Your task to perform on an android device: Open Reddit.com Image 0: 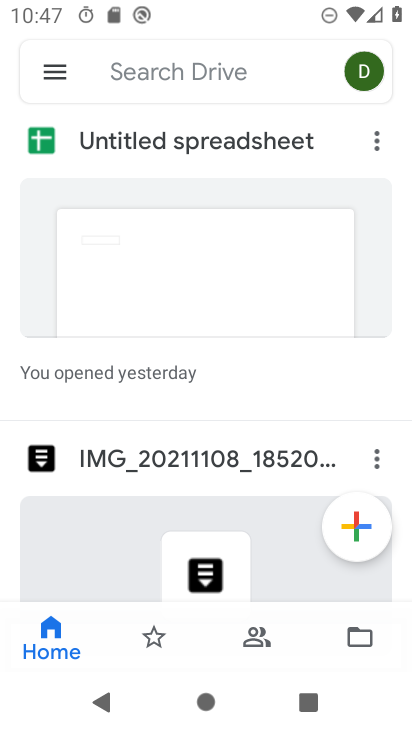
Step 0: press home button
Your task to perform on an android device: Open Reddit.com Image 1: 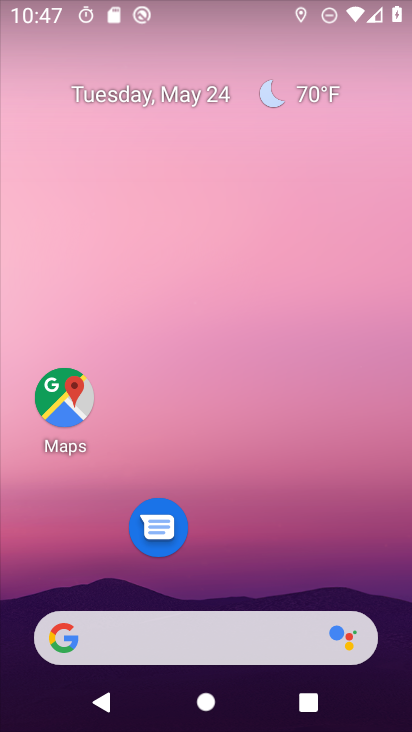
Step 1: drag from (228, 607) to (213, 96)
Your task to perform on an android device: Open Reddit.com Image 2: 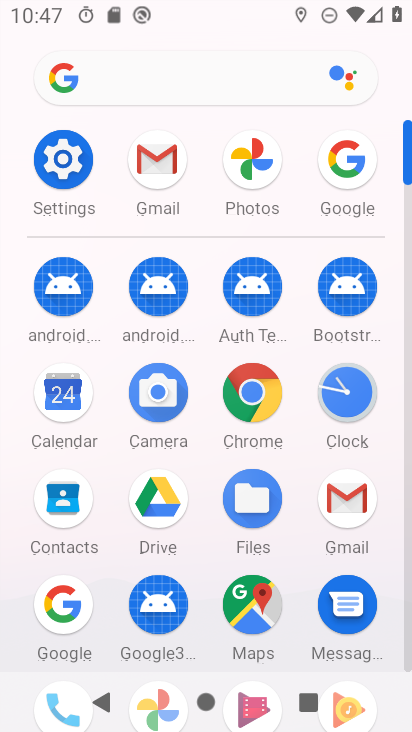
Step 2: click (352, 163)
Your task to perform on an android device: Open Reddit.com Image 3: 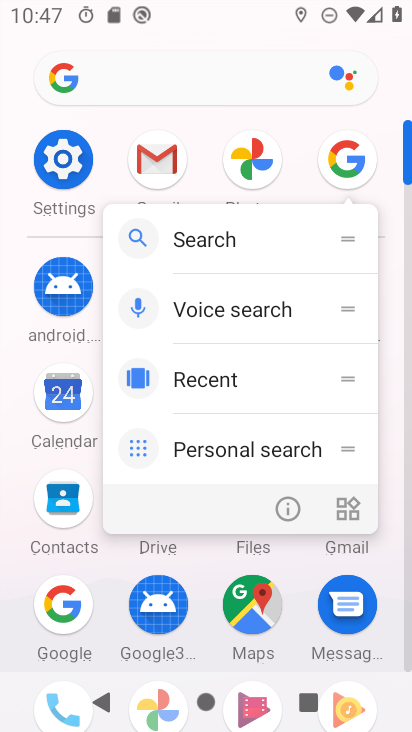
Step 3: click (342, 164)
Your task to perform on an android device: Open Reddit.com Image 4: 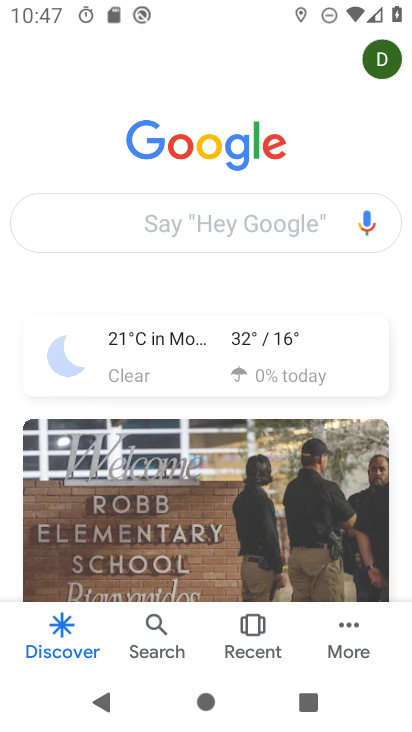
Step 4: click (134, 227)
Your task to perform on an android device: Open Reddit.com Image 5: 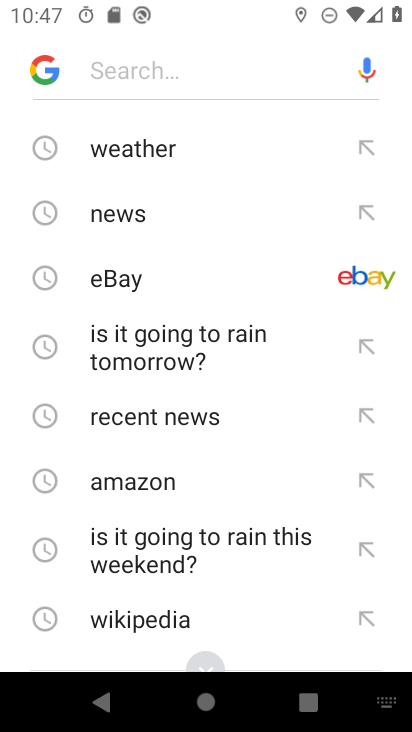
Step 5: drag from (229, 489) to (219, 226)
Your task to perform on an android device: Open Reddit.com Image 6: 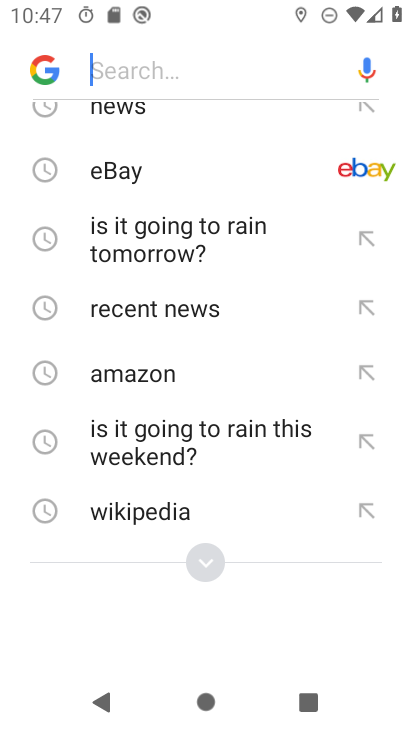
Step 6: click (204, 547)
Your task to perform on an android device: Open Reddit.com Image 7: 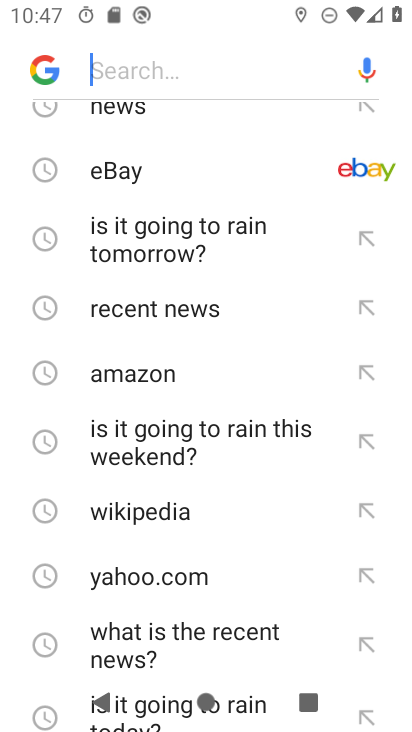
Step 7: drag from (231, 695) to (237, 268)
Your task to perform on an android device: Open Reddit.com Image 8: 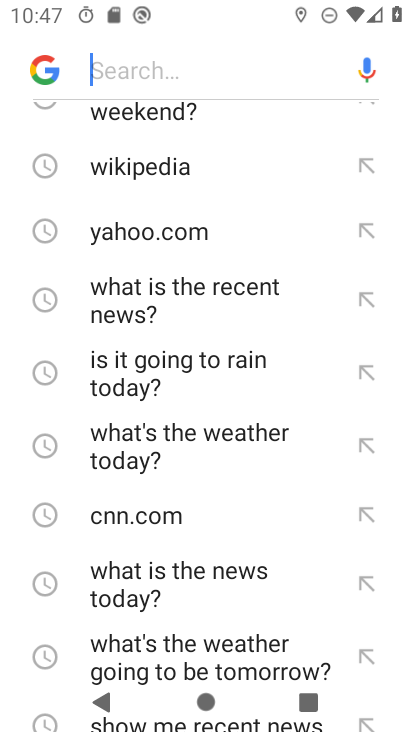
Step 8: drag from (237, 614) to (231, 169)
Your task to perform on an android device: Open Reddit.com Image 9: 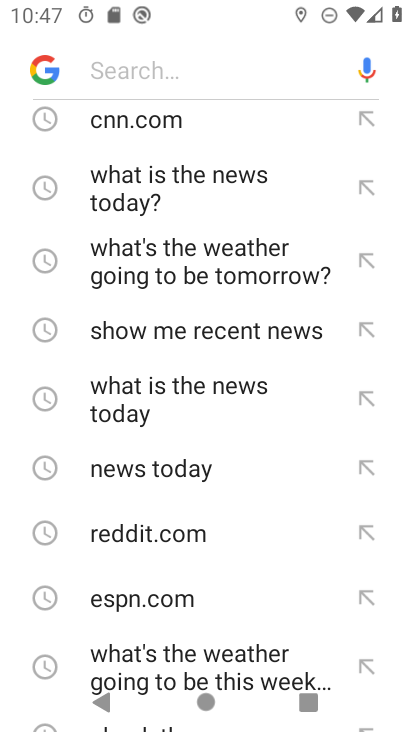
Step 9: click (170, 524)
Your task to perform on an android device: Open Reddit.com Image 10: 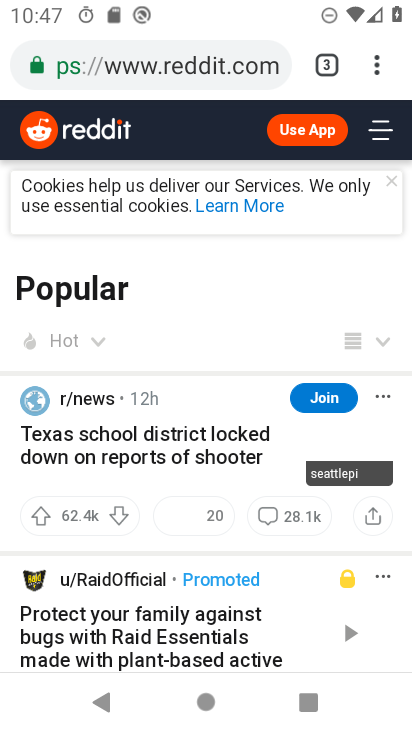
Step 10: task complete